Your task to perform on an android device: Open Google Maps Image 0: 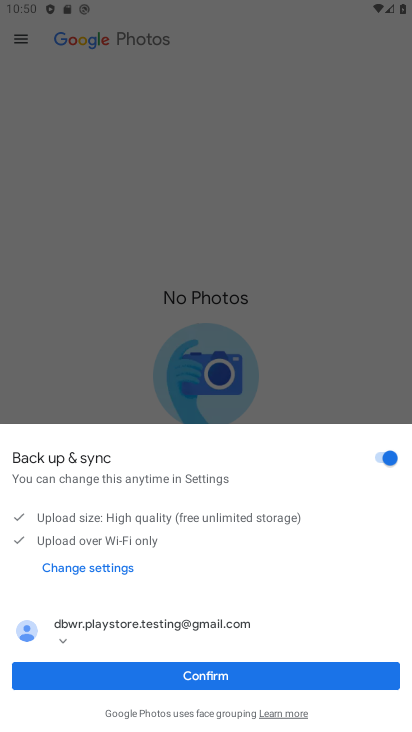
Step 0: press home button
Your task to perform on an android device: Open Google Maps Image 1: 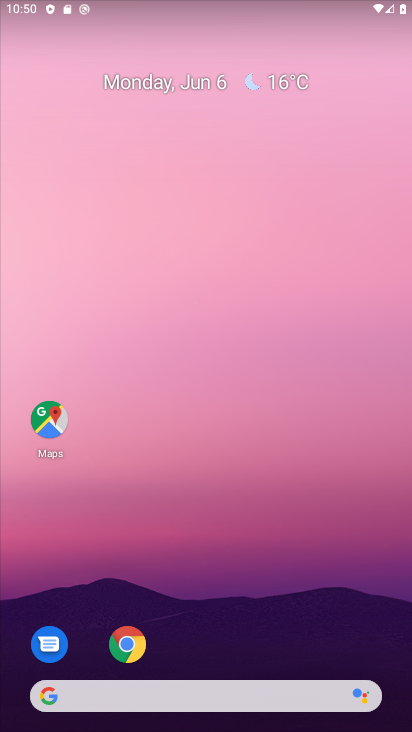
Step 1: drag from (272, 638) to (342, 305)
Your task to perform on an android device: Open Google Maps Image 2: 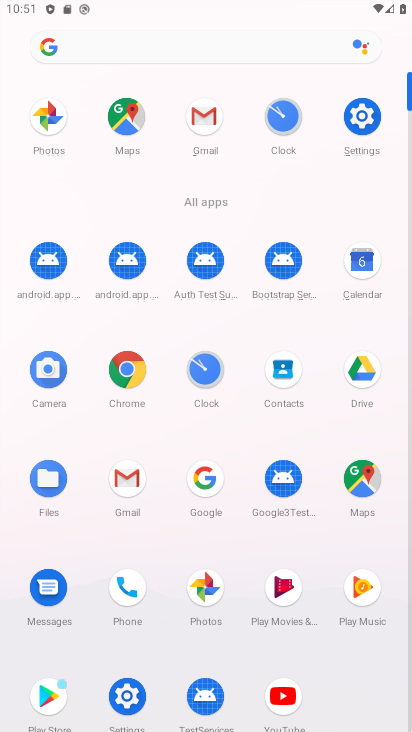
Step 2: click (356, 485)
Your task to perform on an android device: Open Google Maps Image 3: 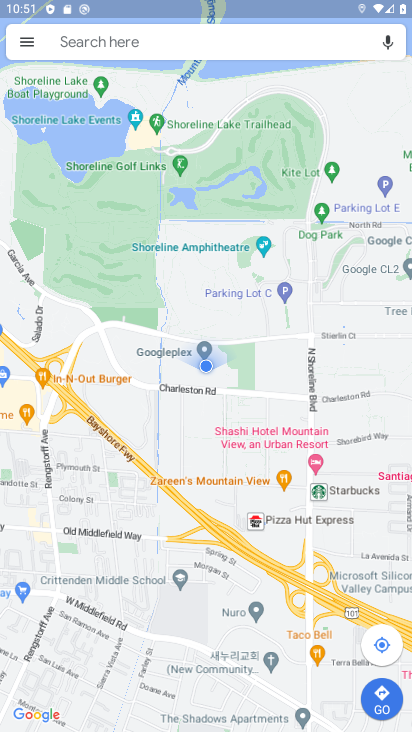
Step 3: task complete